Your task to perform on an android device: Turn on the flashlight Image 0: 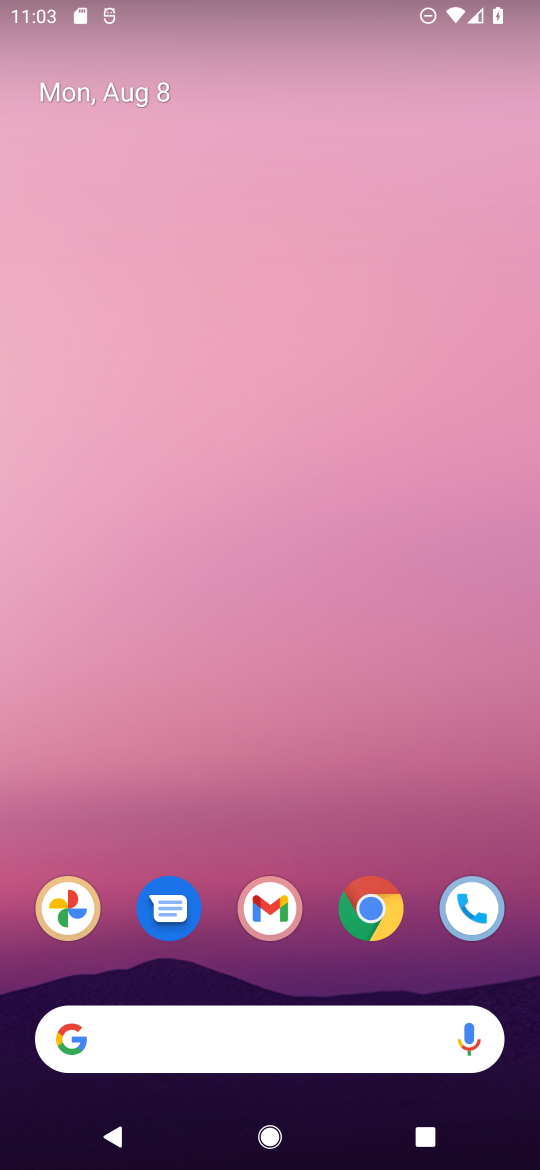
Step 0: press home button
Your task to perform on an android device: Turn on the flashlight Image 1: 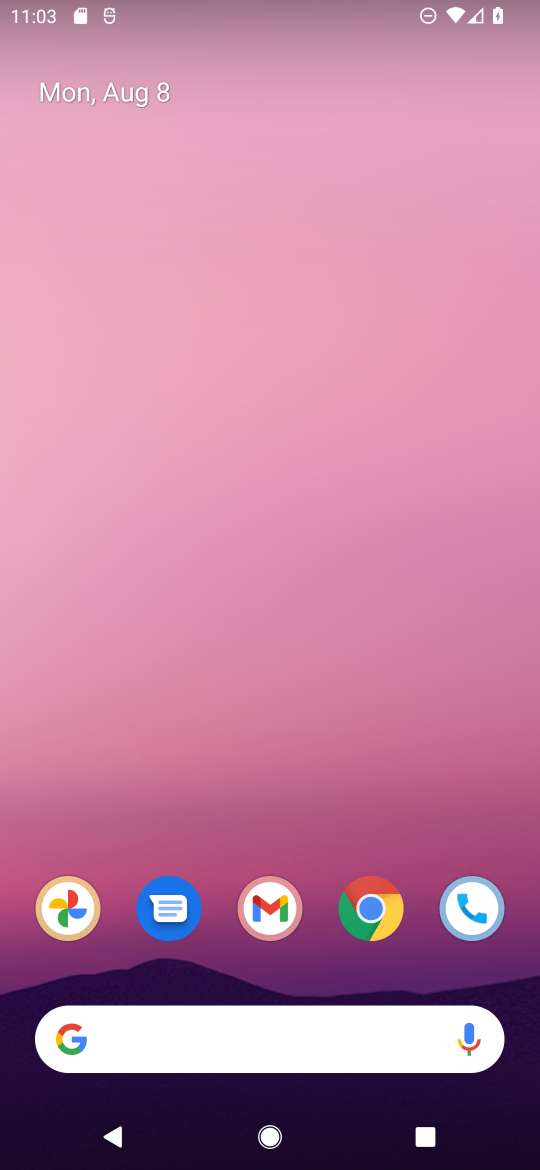
Step 1: drag from (309, 864) to (427, 125)
Your task to perform on an android device: Turn on the flashlight Image 2: 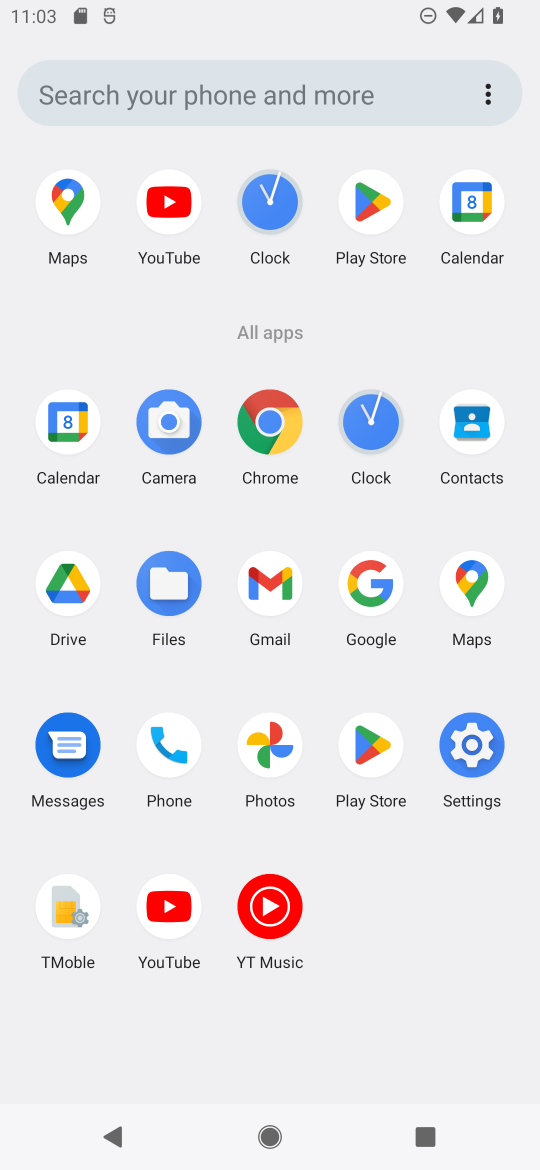
Step 2: click (473, 738)
Your task to perform on an android device: Turn on the flashlight Image 3: 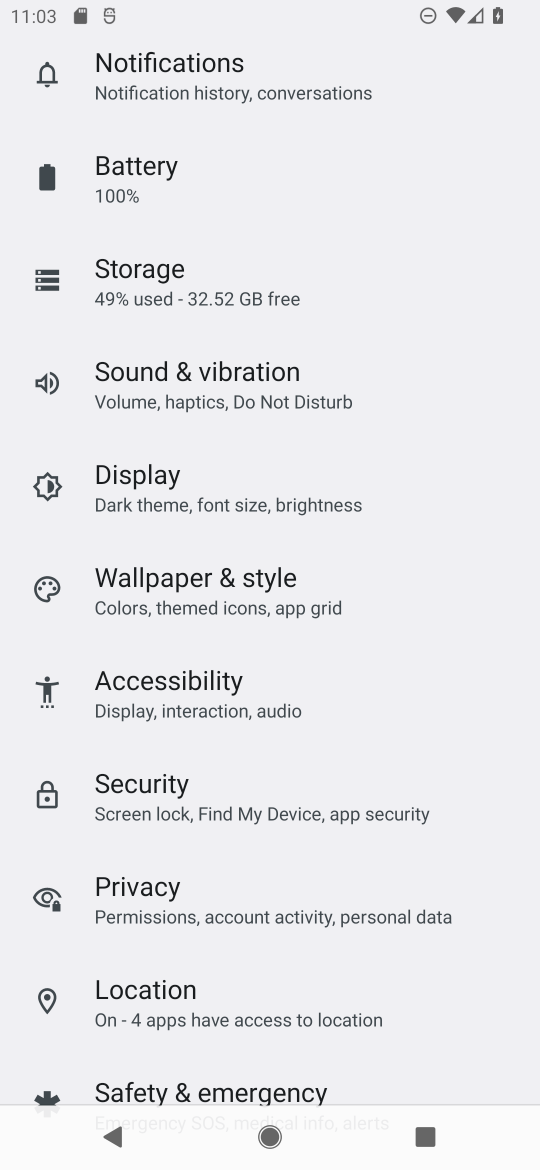
Step 3: drag from (270, 205) to (286, 1159)
Your task to perform on an android device: Turn on the flashlight Image 4: 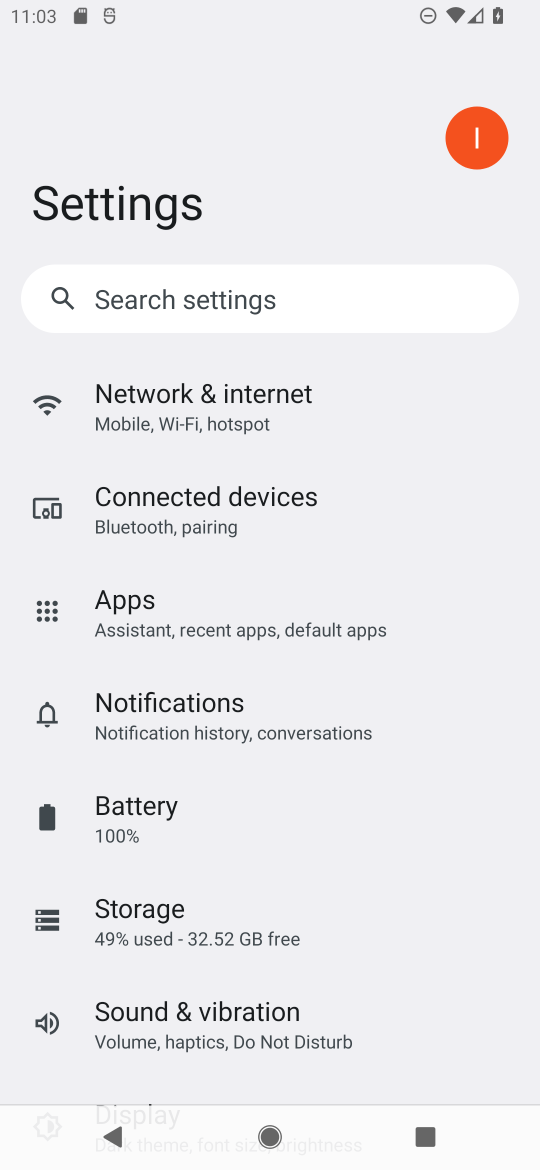
Step 4: click (211, 299)
Your task to perform on an android device: Turn on the flashlight Image 5: 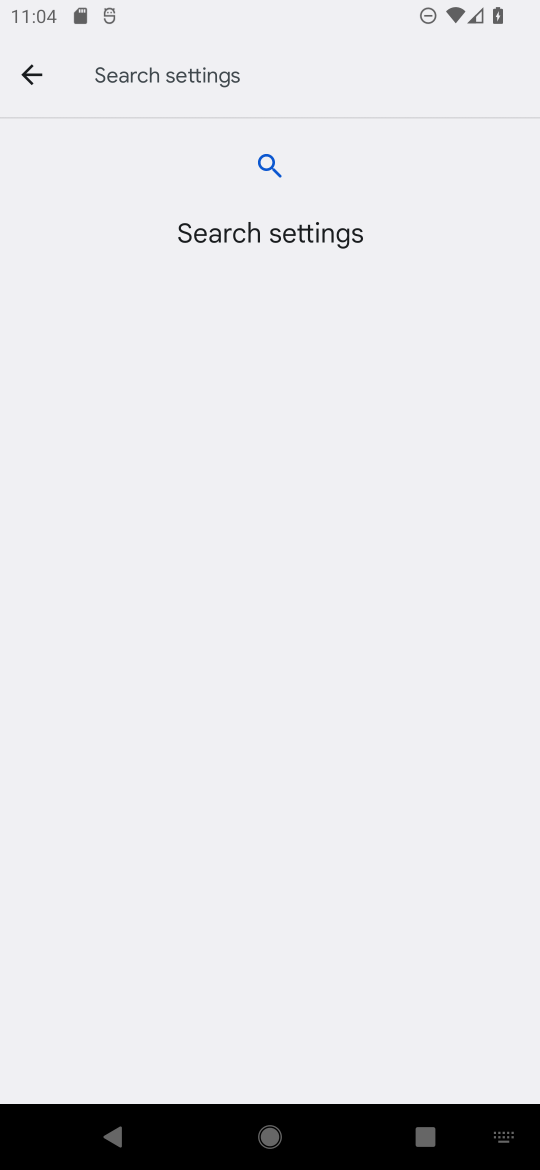
Step 5: type "flashlight"
Your task to perform on an android device: Turn on the flashlight Image 6: 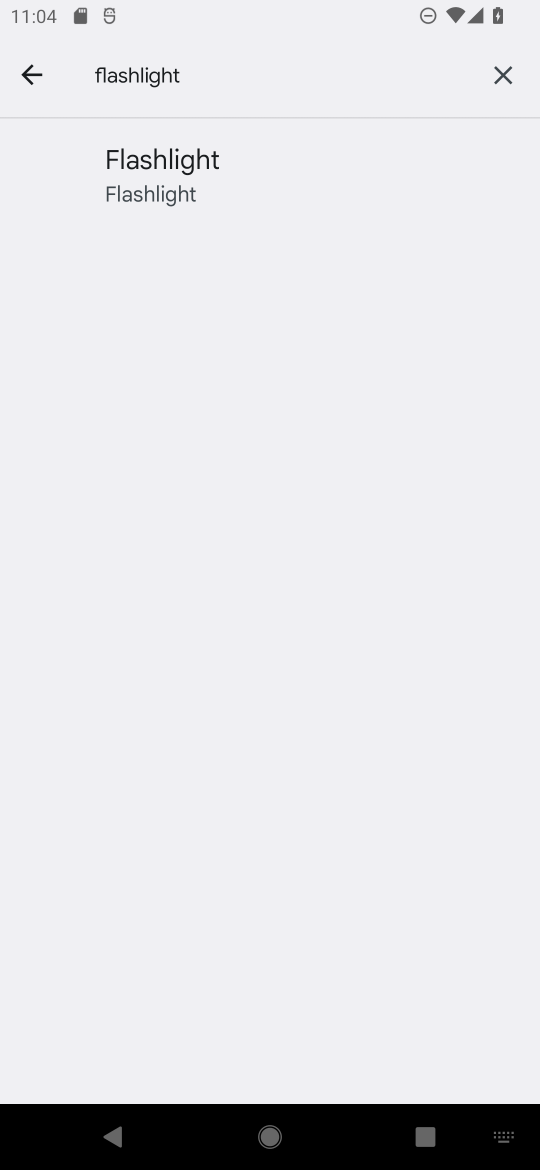
Step 6: click (218, 167)
Your task to perform on an android device: Turn on the flashlight Image 7: 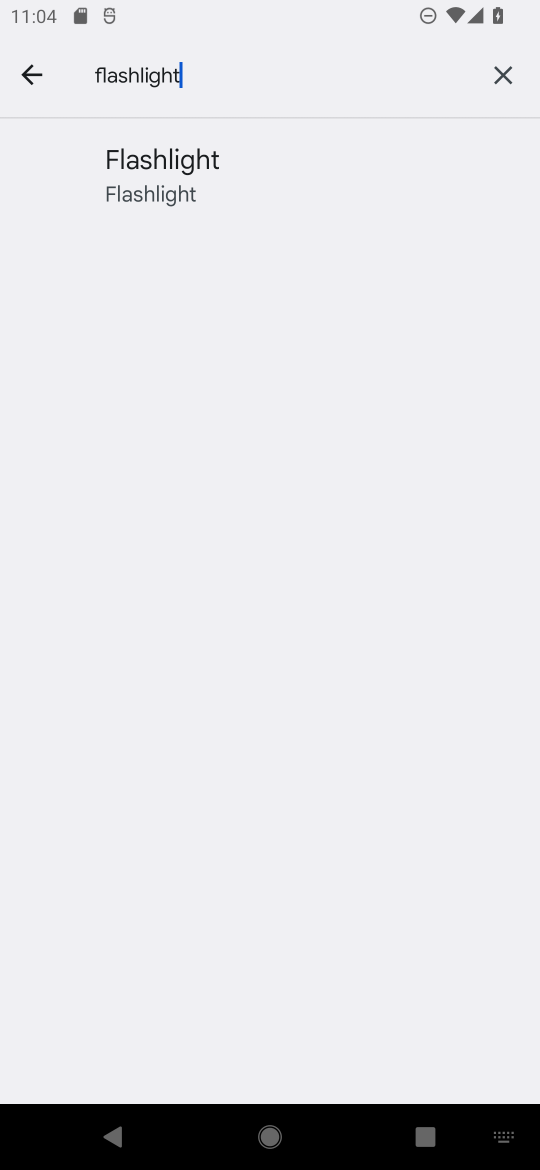
Step 7: click (263, 181)
Your task to perform on an android device: Turn on the flashlight Image 8: 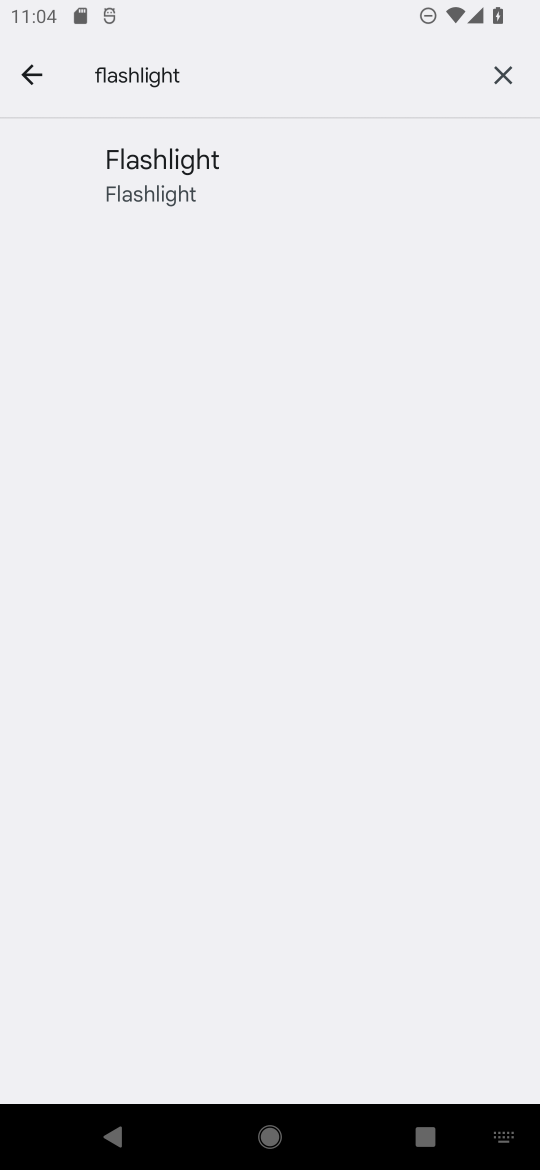
Step 8: task complete